Your task to perform on an android device: turn off notifications settings in the gmail app Image 0: 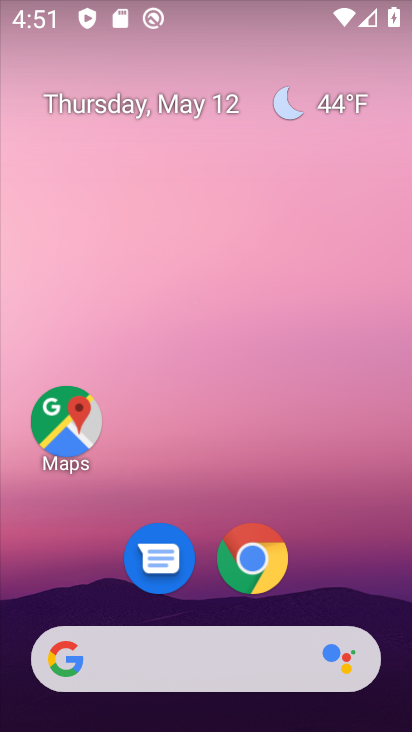
Step 0: drag from (306, 531) to (217, 33)
Your task to perform on an android device: turn off notifications settings in the gmail app Image 1: 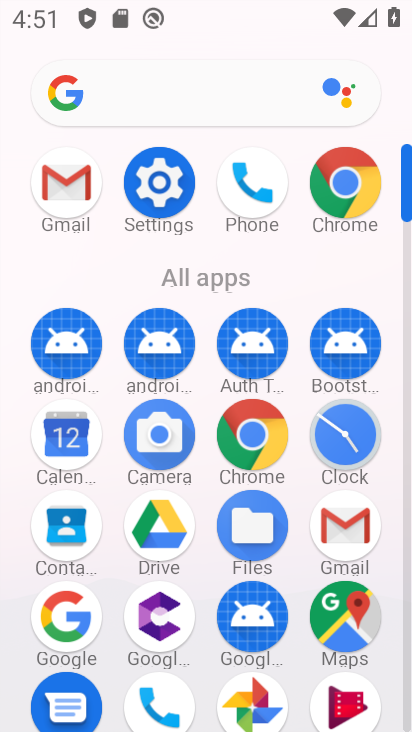
Step 1: drag from (6, 486) to (6, 220)
Your task to perform on an android device: turn off notifications settings in the gmail app Image 2: 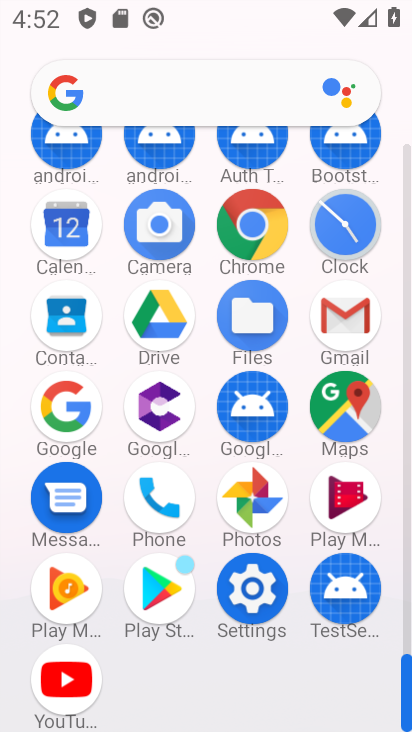
Step 2: click (344, 305)
Your task to perform on an android device: turn off notifications settings in the gmail app Image 3: 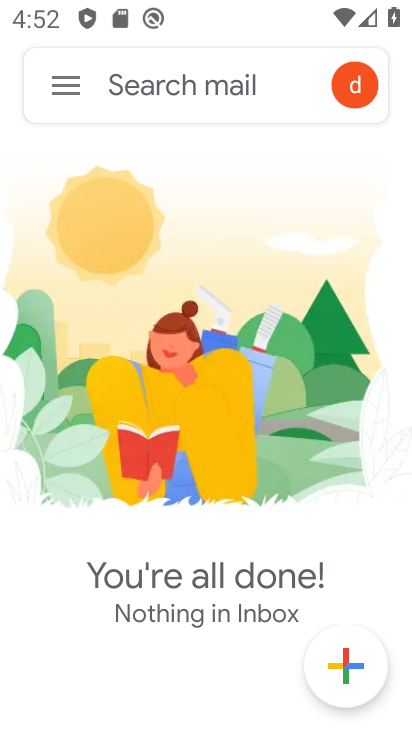
Step 3: click (69, 78)
Your task to perform on an android device: turn off notifications settings in the gmail app Image 4: 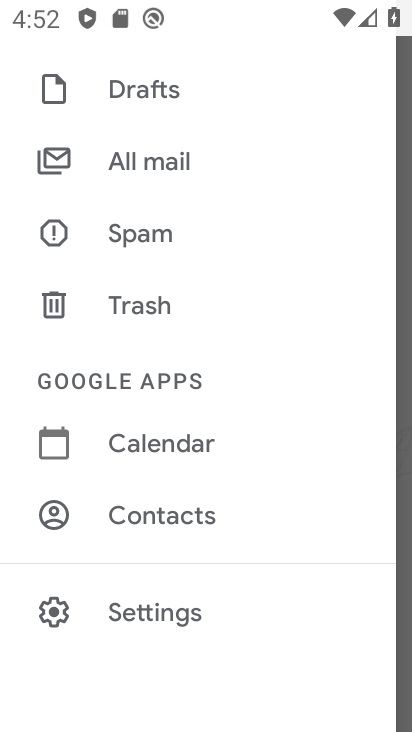
Step 4: drag from (197, 586) to (202, 155)
Your task to perform on an android device: turn off notifications settings in the gmail app Image 5: 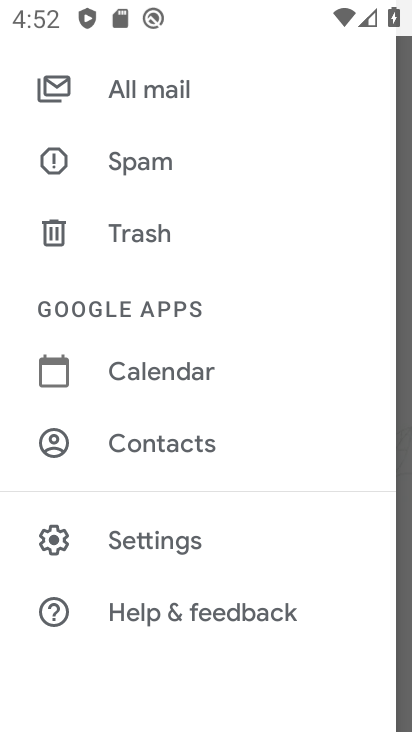
Step 5: click (149, 534)
Your task to perform on an android device: turn off notifications settings in the gmail app Image 6: 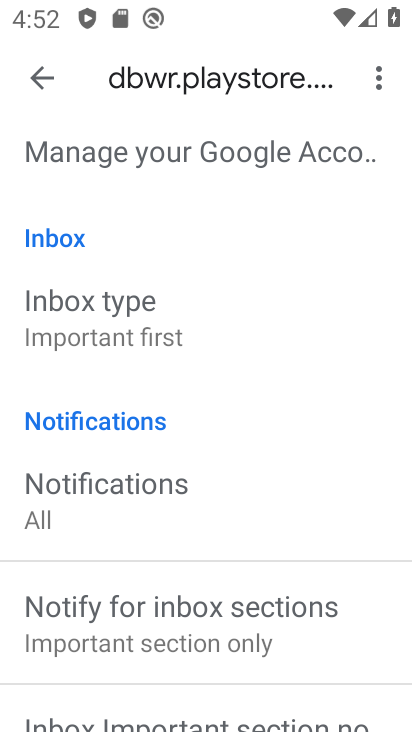
Step 6: drag from (255, 474) to (255, 198)
Your task to perform on an android device: turn off notifications settings in the gmail app Image 7: 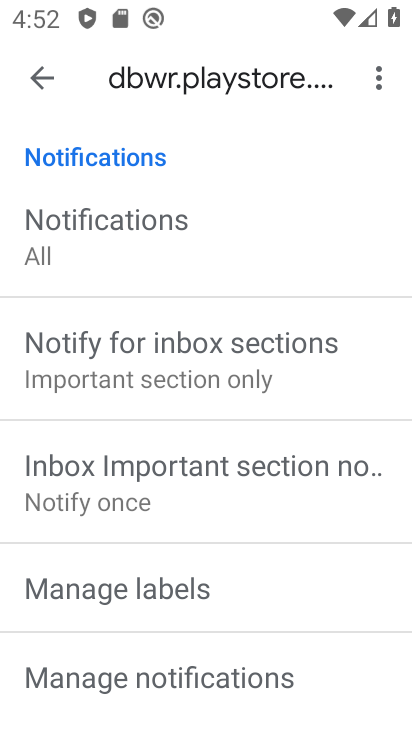
Step 7: drag from (229, 517) to (253, 152)
Your task to perform on an android device: turn off notifications settings in the gmail app Image 8: 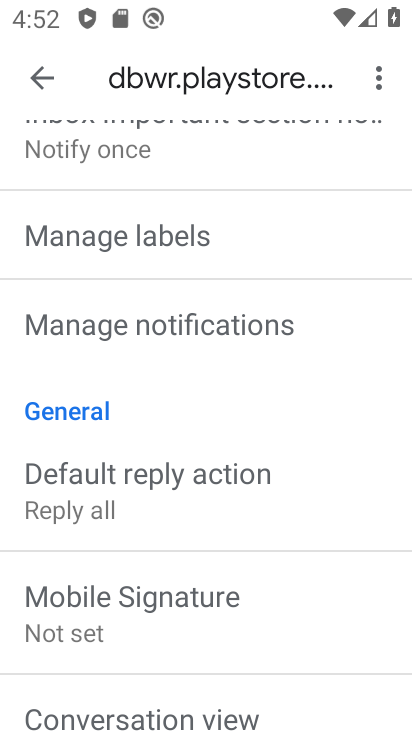
Step 8: click (199, 312)
Your task to perform on an android device: turn off notifications settings in the gmail app Image 9: 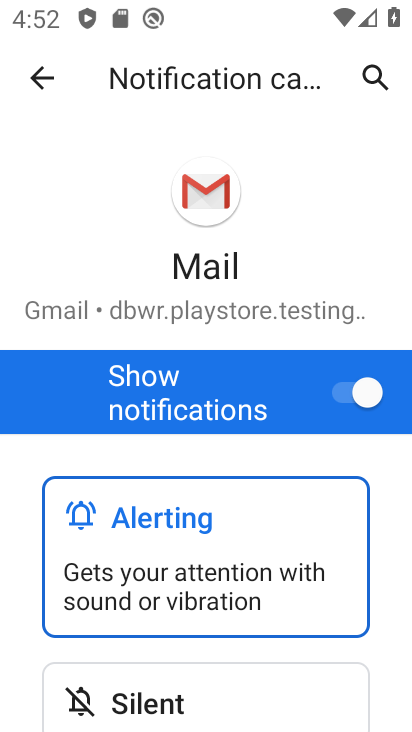
Step 9: click (340, 391)
Your task to perform on an android device: turn off notifications settings in the gmail app Image 10: 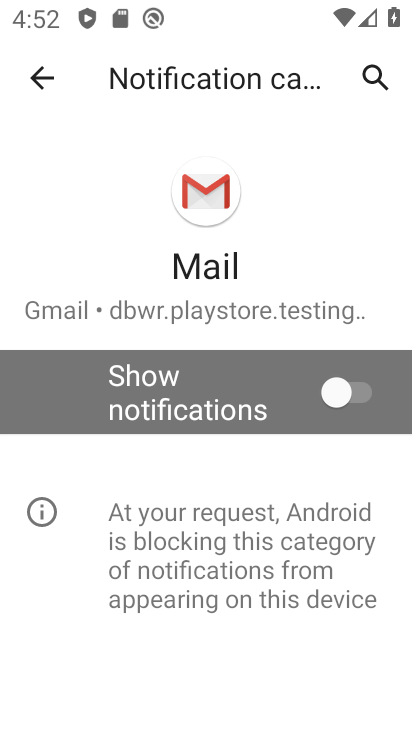
Step 10: task complete